Your task to perform on an android device: change notification settings in the gmail app Image 0: 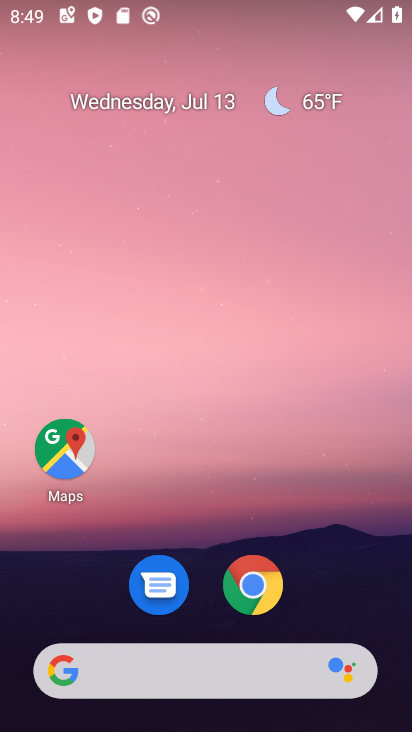
Step 0: drag from (271, 507) to (200, 24)
Your task to perform on an android device: change notification settings in the gmail app Image 1: 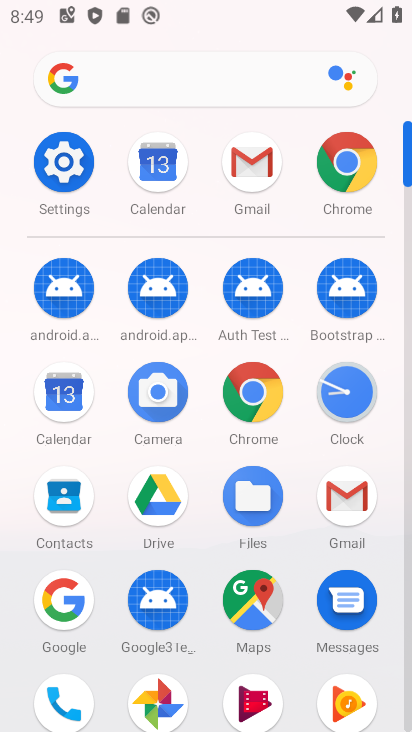
Step 1: click (241, 160)
Your task to perform on an android device: change notification settings in the gmail app Image 2: 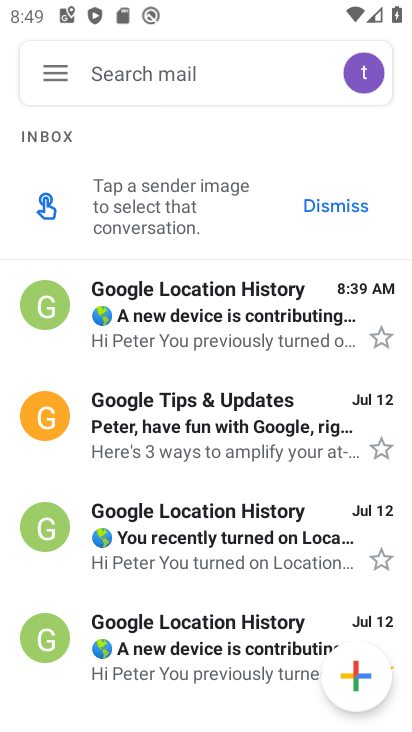
Step 2: click (47, 74)
Your task to perform on an android device: change notification settings in the gmail app Image 3: 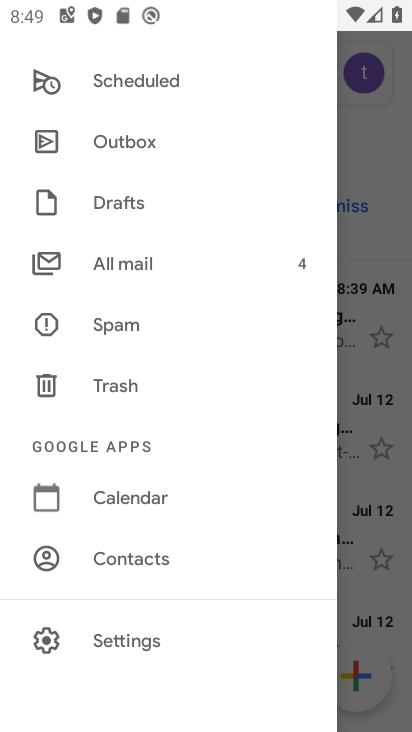
Step 3: click (140, 638)
Your task to perform on an android device: change notification settings in the gmail app Image 4: 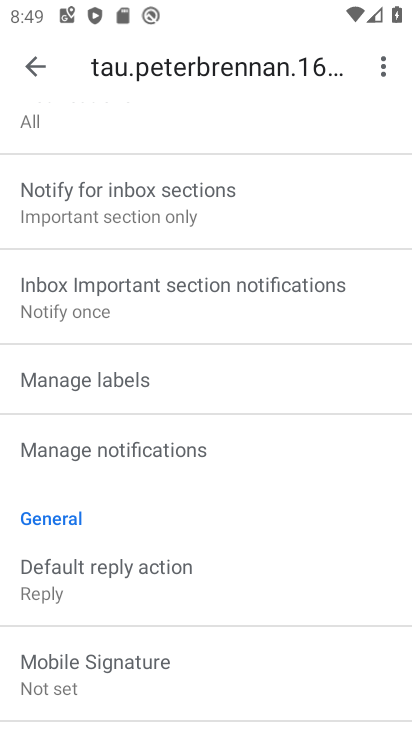
Step 4: click (200, 451)
Your task to perform on an android device: change notification settings in the gmail app Image 5: 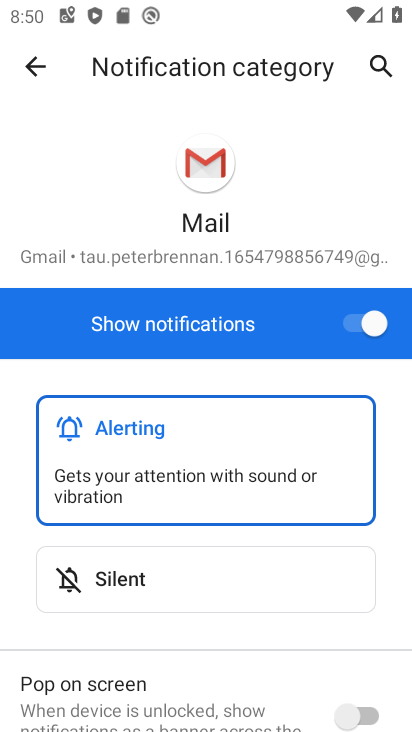
Step 5: click (370, 321)
Your task to perform on an android device: change notification settings in the gmail app Image 6: 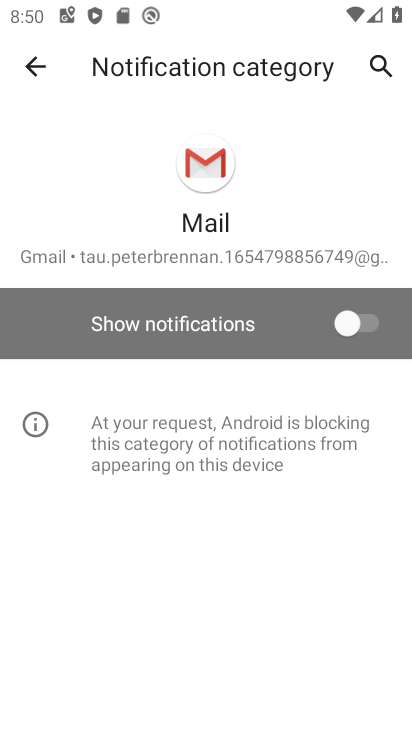
Step 6: task complete